Your task to perform on an android device: open app "Facebook Lite" Image 0: 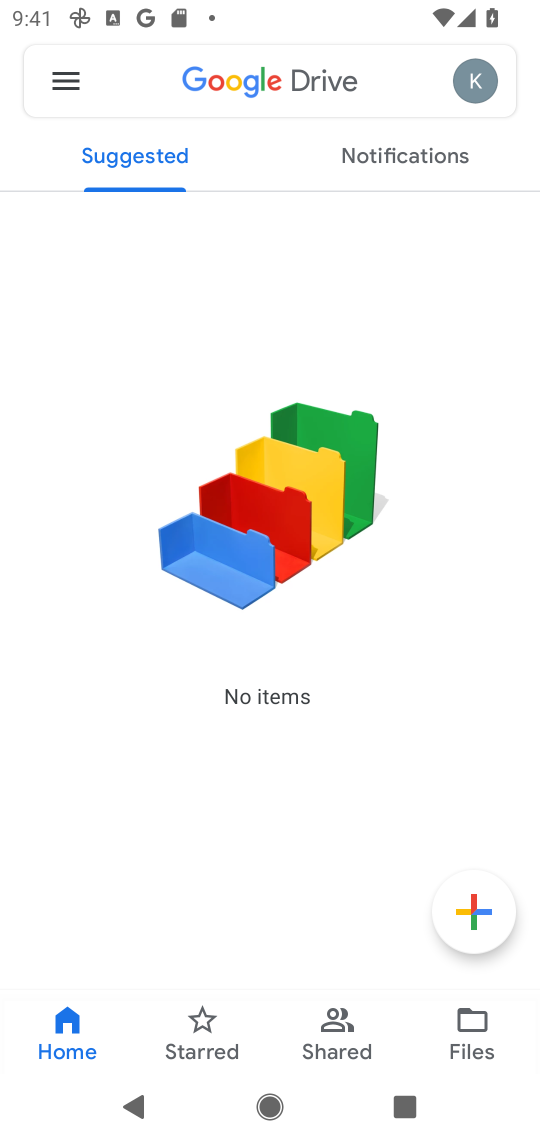
Step 0: press home button
Your task to perform on an android device: open app "Facebook Lite" Image 1: 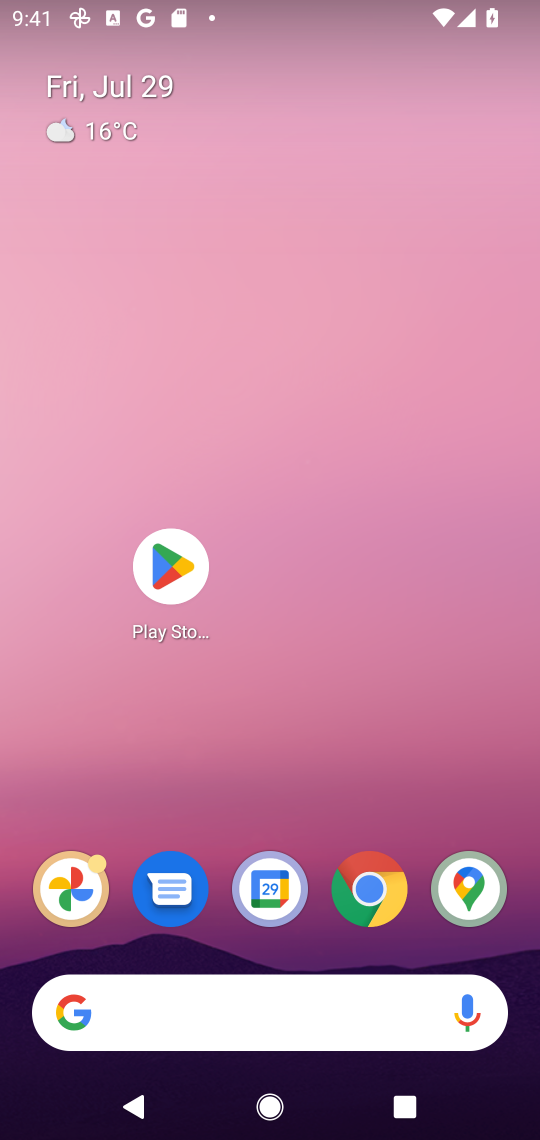
Step 1: click (179, 574)
Your task to perform on an android device: open app "Facebook Lite" Image 2: 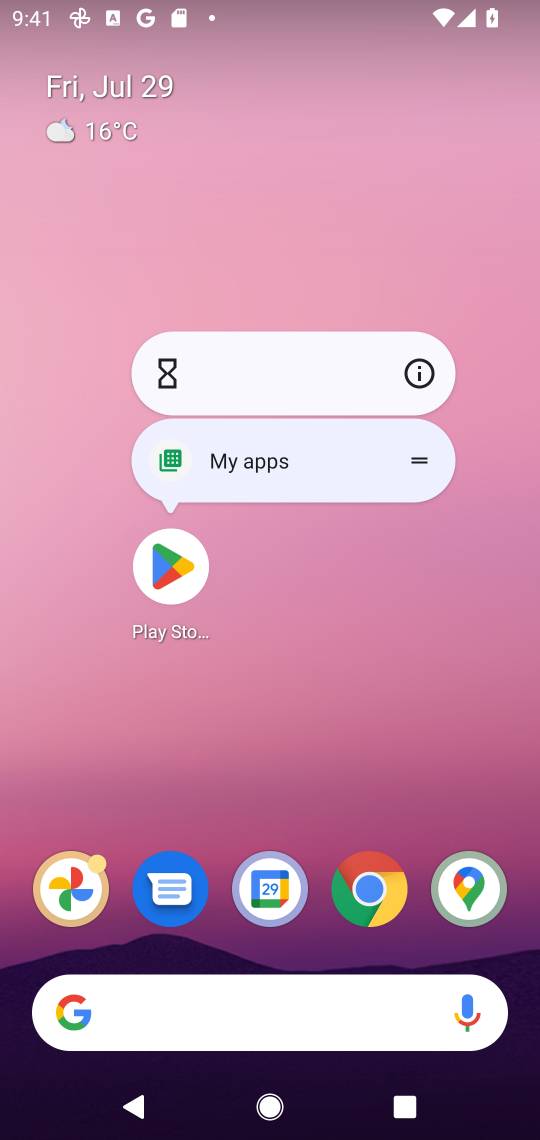
Step 2: click (173, 577)
Your task to perform on an android device: open app "Facebook Lite" Image 3: 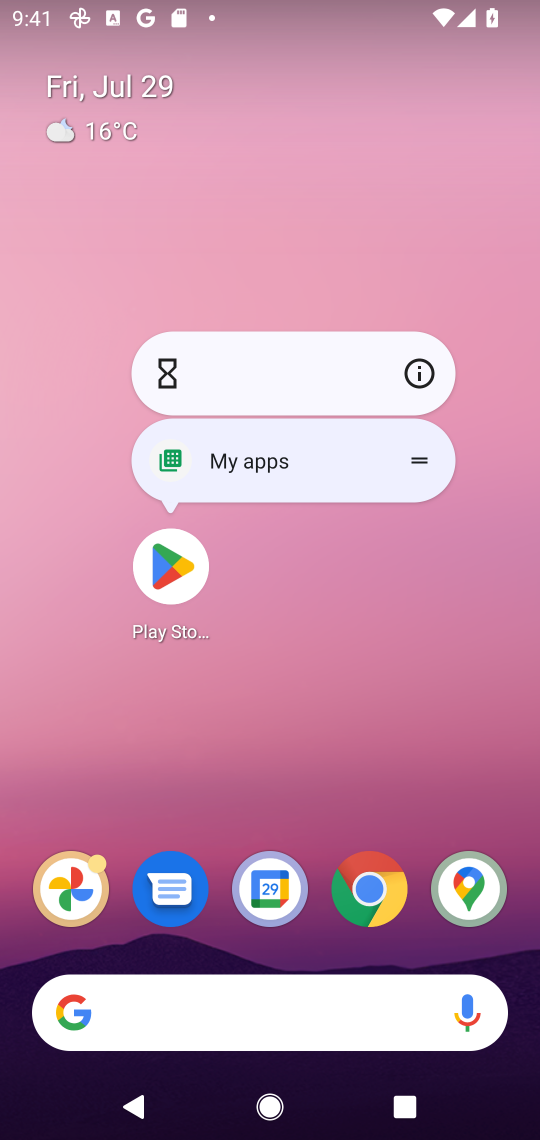
Step 3: click (173, 577)
Your task to perform on an android device: open app "Facebook Lite" Image 4: 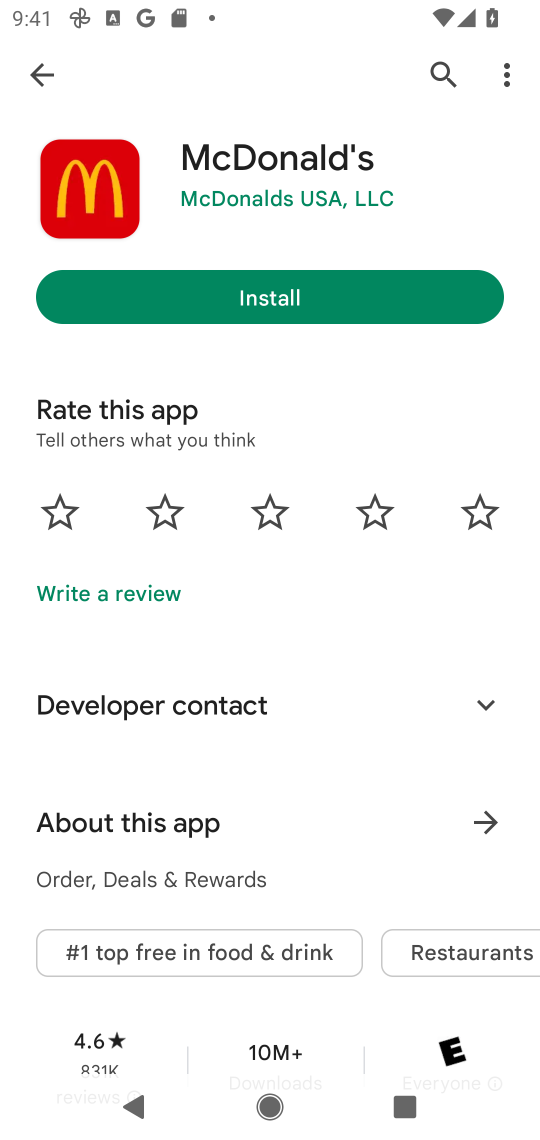
Step 4: click (436, 70)
Your task to perform on an android device: open app "Facebook Lite" Image 5: 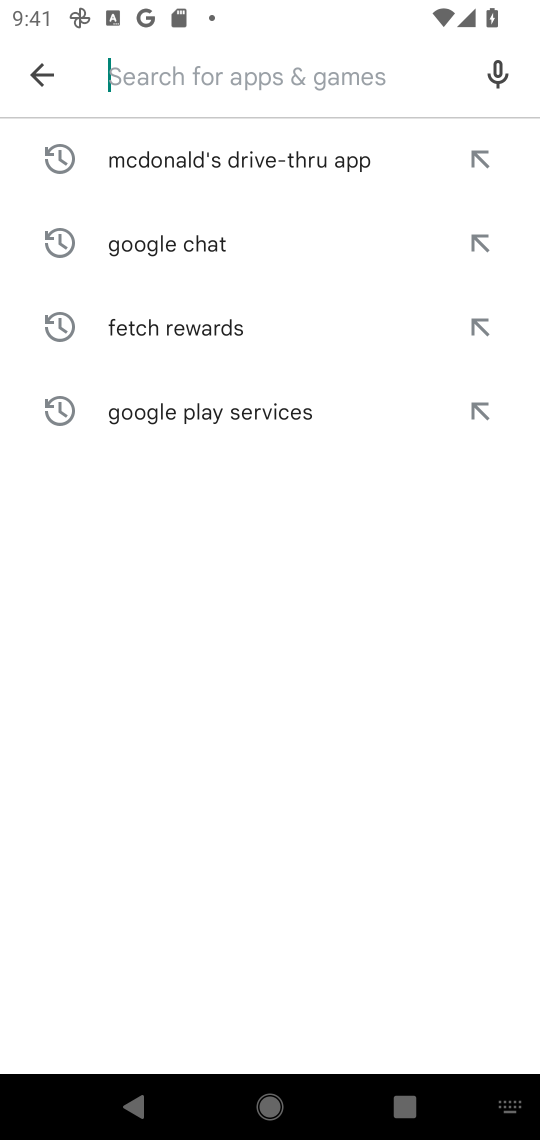
Step 5: type "Facebook Lite"
Your task to perform on an android device: open app "Facebook Lite" Image 6: 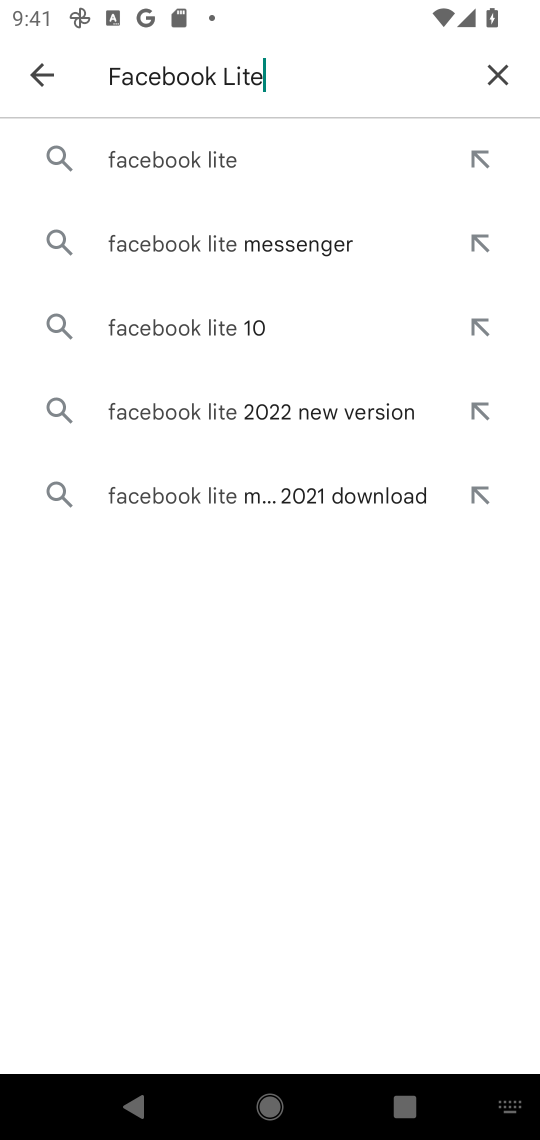
Step 6: click (216, 156)
Your task to perform on an android device: open app "Facebook Lite" Image 7: 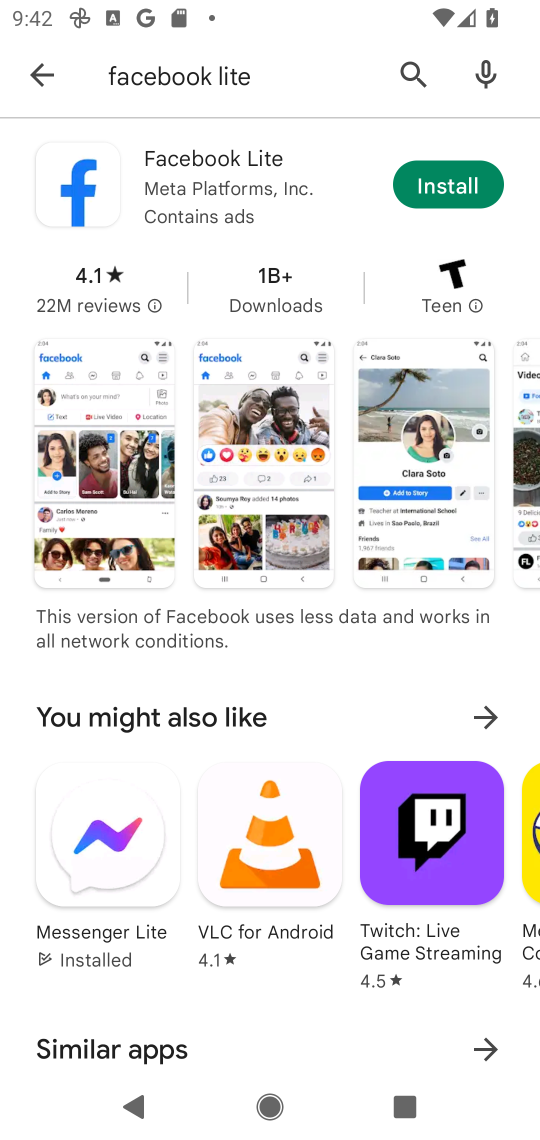
Step 7: task complete